Your task to perform on an android device: Go to eBay Image 0: 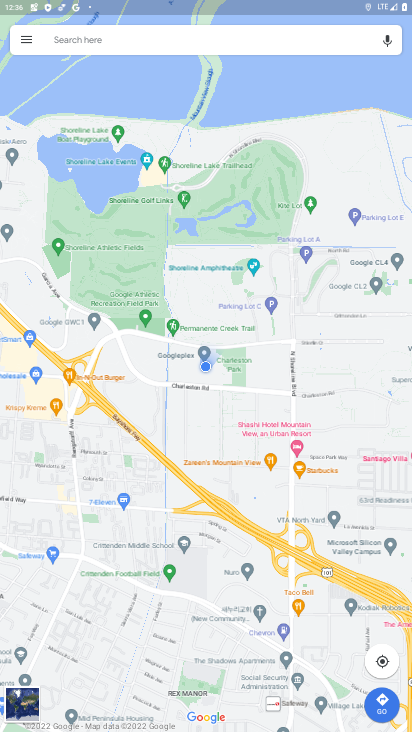
Step 0: press home button
Your task to perform on an android device: Go to eBay Image 1: 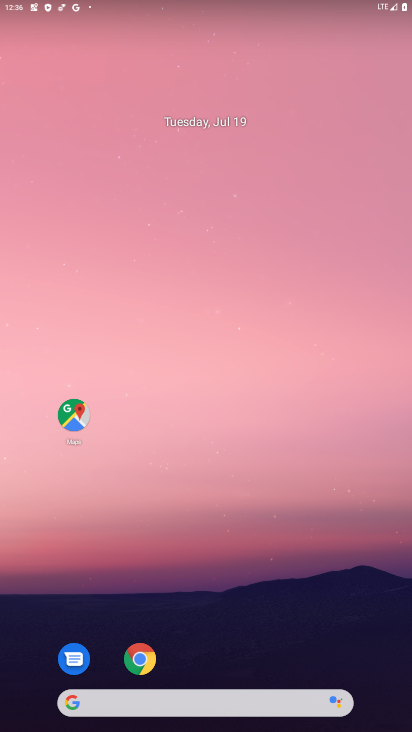
Step 1: click (142, 661)
Your task to perform on an android device: Go to eBay Image 2: 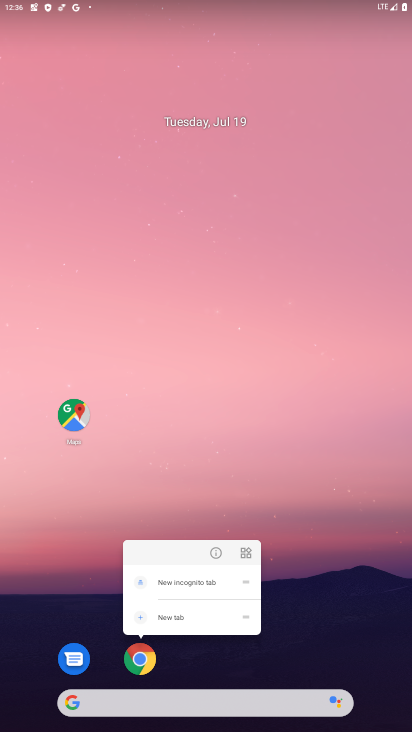
Step 2: click (142, 661)
Your task to perform on an android device: Go to eBay Image 3: 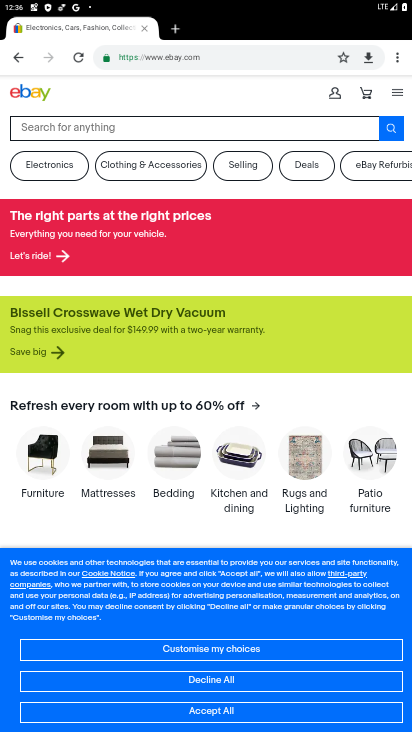
Step 3: task complete